Your task to perform on an android device: Open Yahoo.com Image 0: 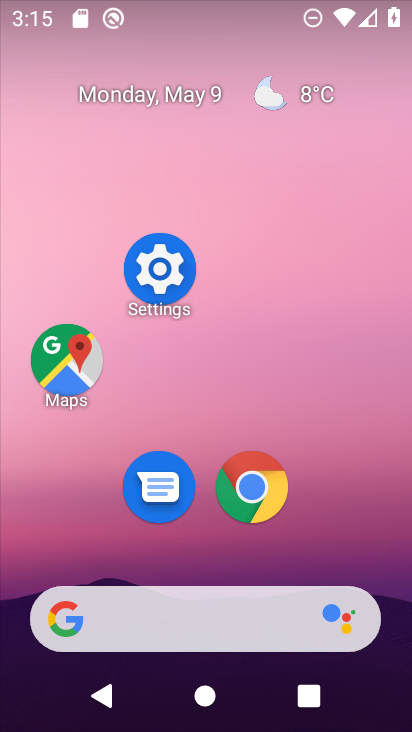
Step 0: click (265, 502)
Your task to perform on an android device: Open Yahoo.com Image 1: 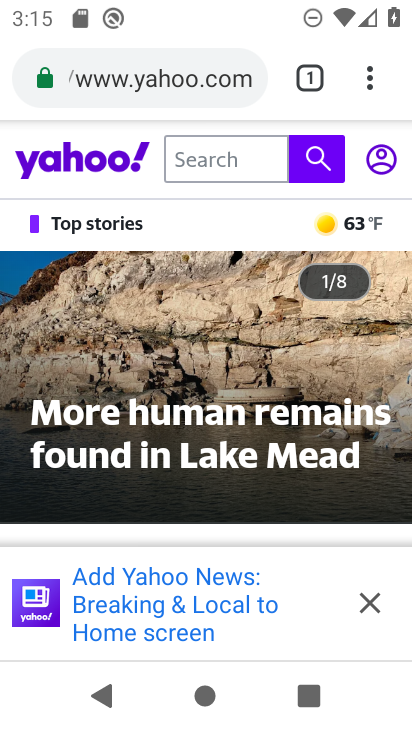
Step 1: click (174, 76)
Your task to perform on an android device: Open Yahoo.com Image 2: 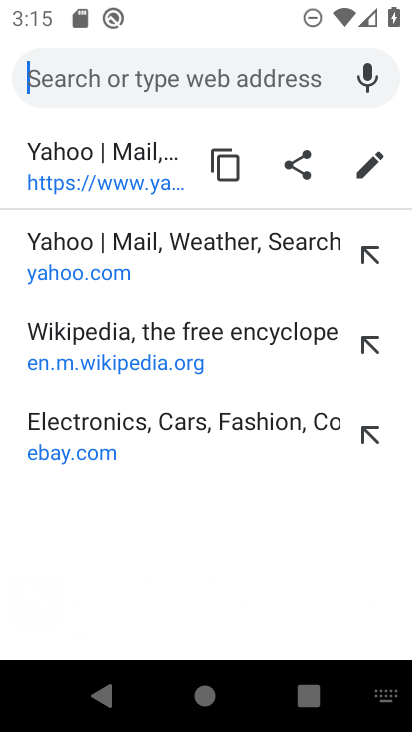
Step 2: type "yahoo.com"
Your task to perform on an android device: Open Yahoo.com Image 3: 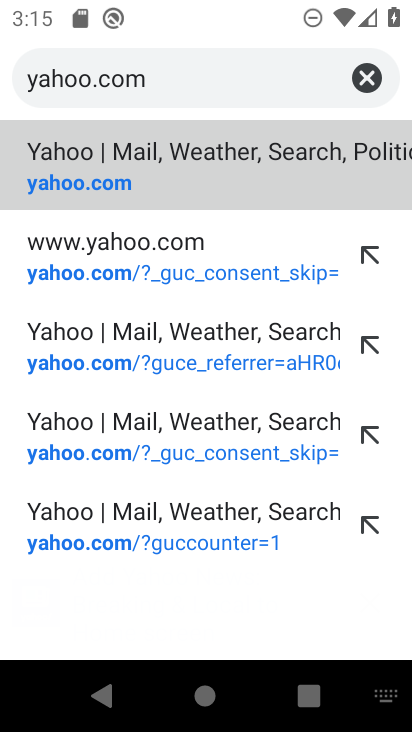
Step 3: click (153, 150)
Your task to perform on an android device: Open Yahoo.com Image 4: 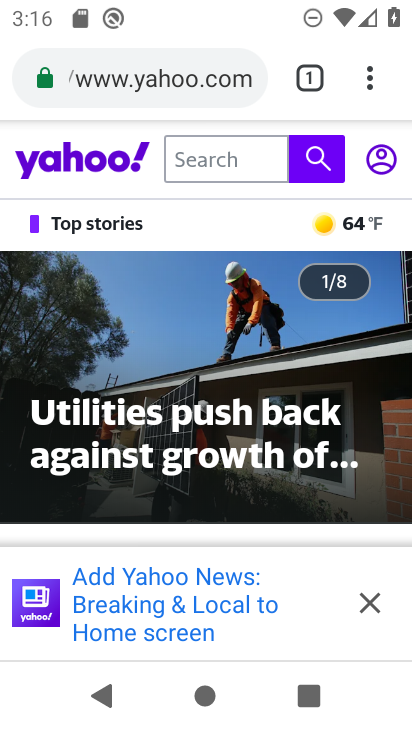
Step 4: task complete